Your task to perform on an android device: Go to settings Image 0: 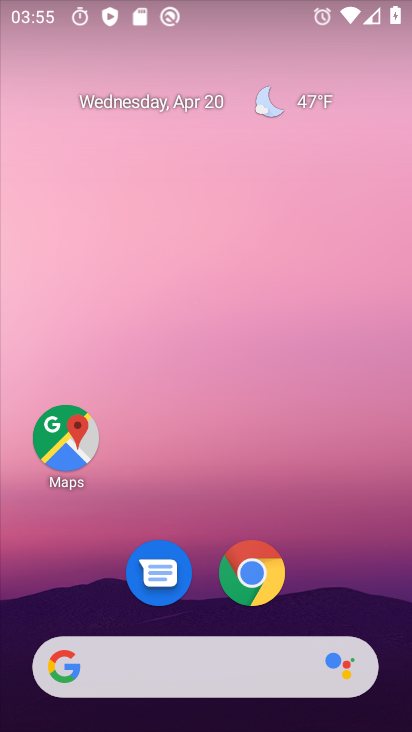
Step 0: drag from (203, 718) to (192, 161)
Your task to perform on an android device: Go to settings Image 1: 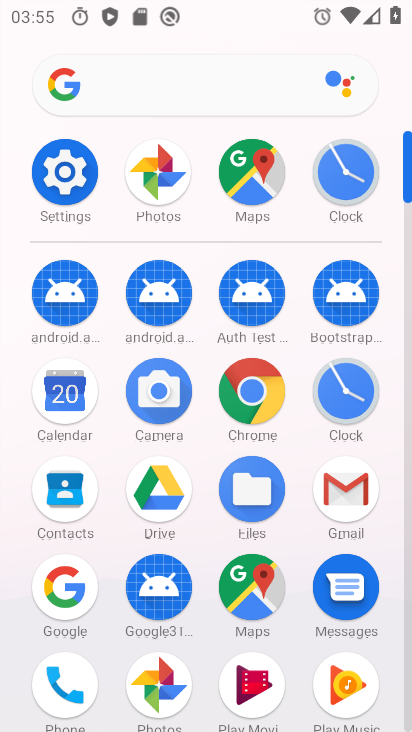
Step 1: click (83, 175)
Your task to perform on an android device: Go to settings Image 2: 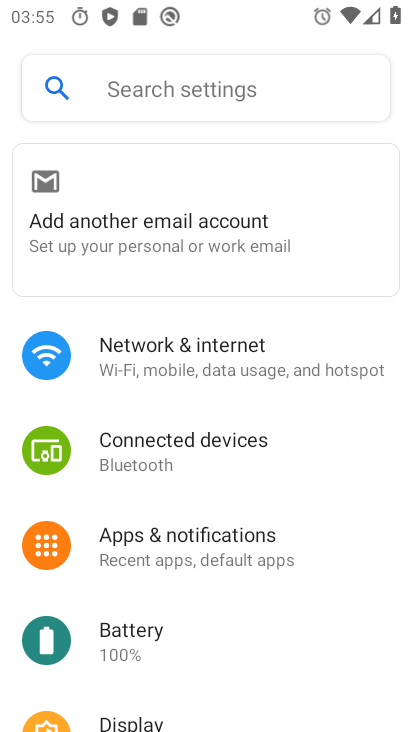
Step 2: task complete